Your task to perform on an android device: delete the emails in spam in the gmail app Image 0: 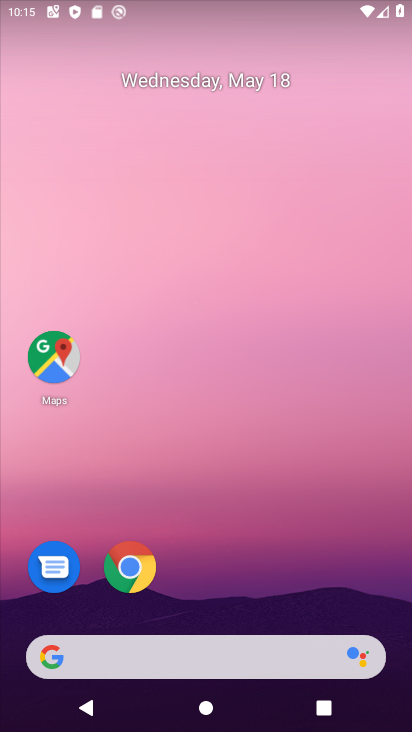
Step 0: drag from (251, 679) to (315, 231)
Your task to perform on an android device: delete the emails in spam in the gmail app Image 1: 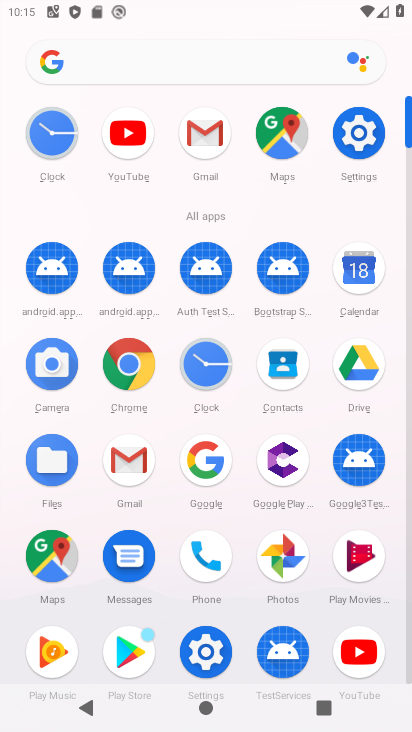
Step 1: click (122, 444)
Your task to perform on an android device: delete the emails in spam in the gmail app Image 2: 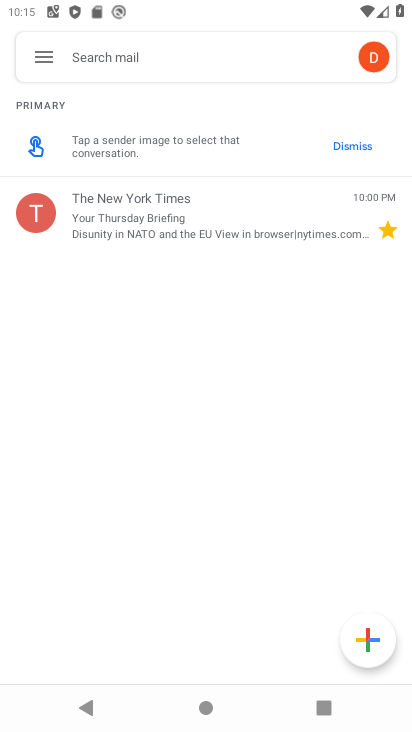
Step 2: click (39, 66)
Your task to perform on an android device: delete the emails in spam in the gmail app Image 3: 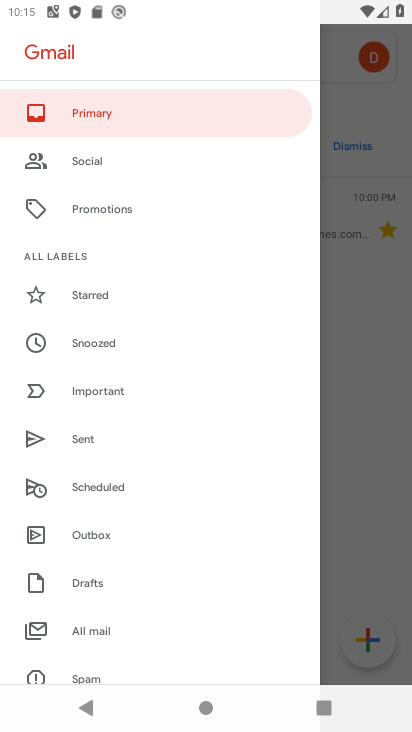
Step 3: click (79, 673)
Your task to perform on an android device: delete the emails in spam in the gmail app Image 4: 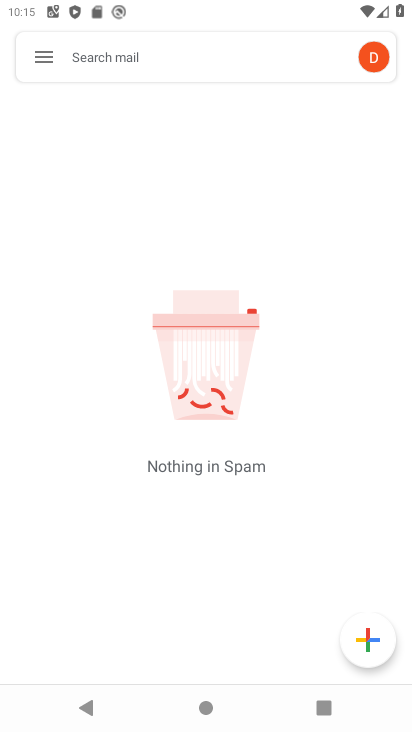
Step 4: task complete